Your task to perform on an android device: turn on notifications settings in the gmail app Image 0: 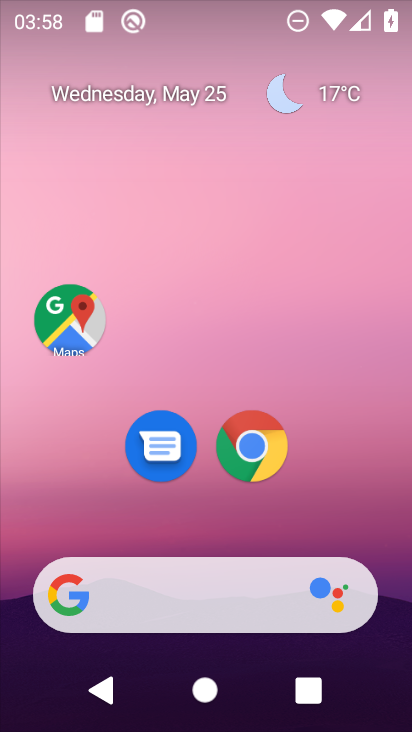
Step 0: drag from (183, 593) to (205, 149)
Your task to perform on an android device: turn on notifications settings in the gmail app Image 1: 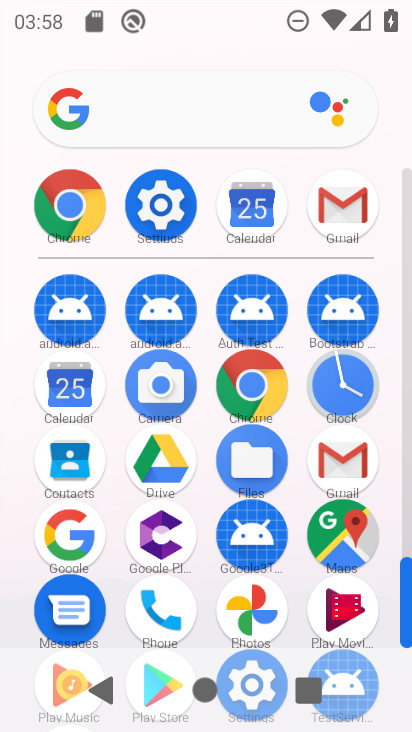
Step 1: click (325, 215)
Your task to perform on an android device: turn on notifications settings in the gmail app Image 2: 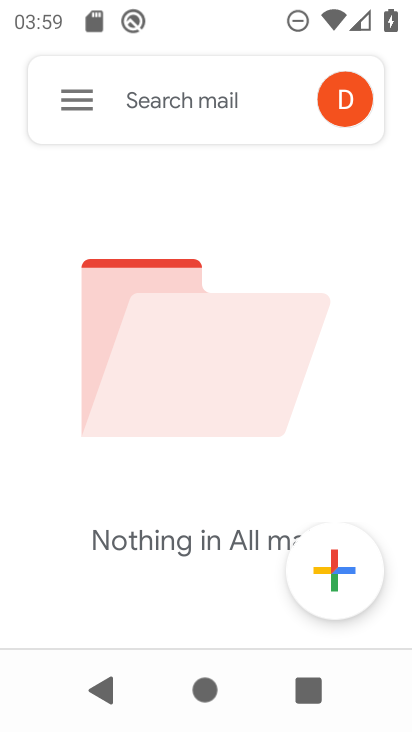
Step 2: click (63, 103)
Your task to perform on an android device: turn on notifications settings in the gmail app Image 3: 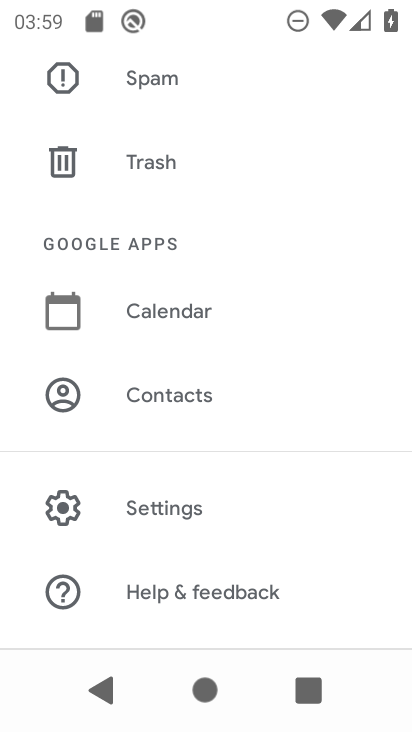
Step 3: click (153, 510)
Your task to perform on an android device: turn on notifications settings in the gmail app Image 4: 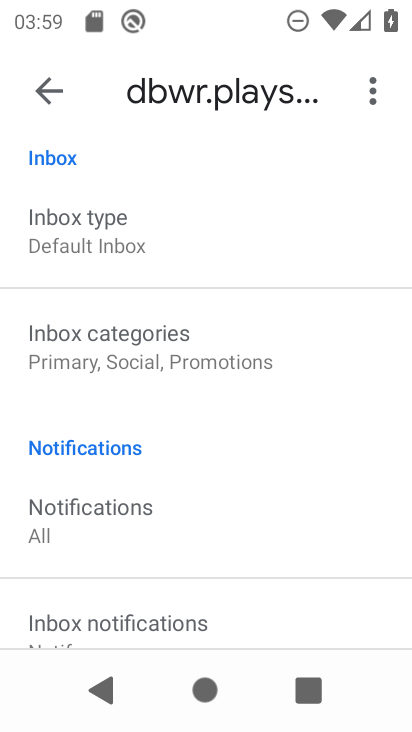
Step 4: drag from (151, 530) to (147, 295)
Your task to perform on an android device: turn on notifications settings in the gmail app Image 5: 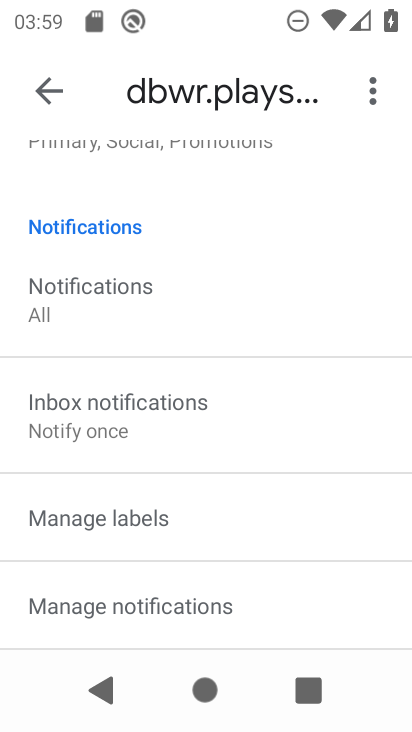
Step 5: click (183, 606)
Your task to perform on an android device: turn on notifications settings in the gmail app Image 6: 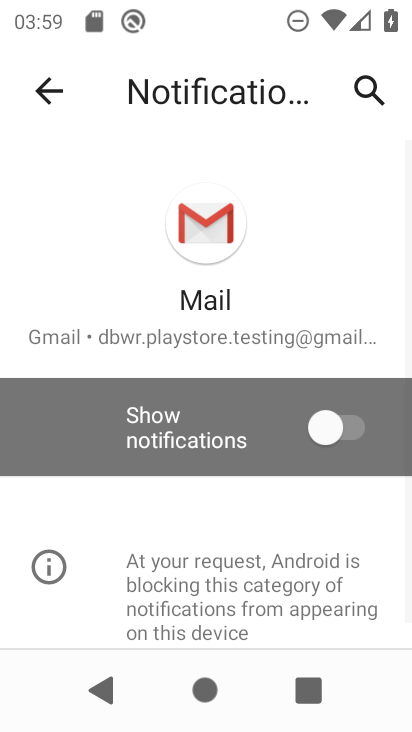
Step 6: click (329, 433)
Your task to perform on an android device: turn on notifications settings in the gmail app Image 7: 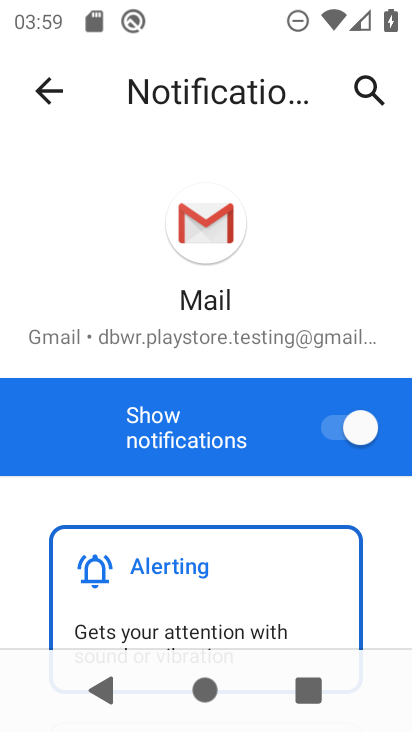
Step 7: task complete